Your task to perform on an android device: turn off airplane mode Image 0: 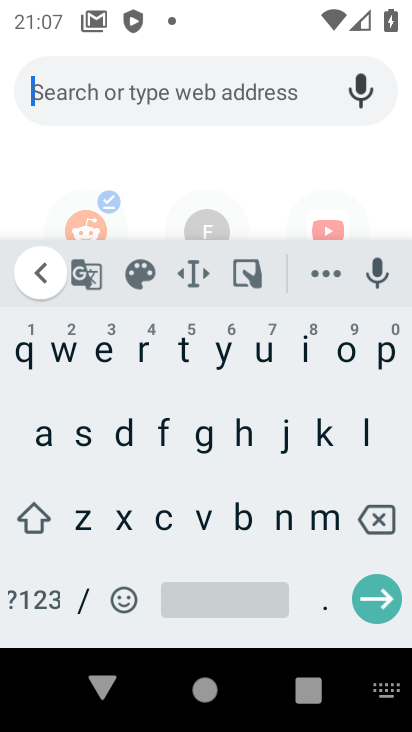
Step 0: press home button
Your task to perform on an android device: turn off airplane mode Image 1: 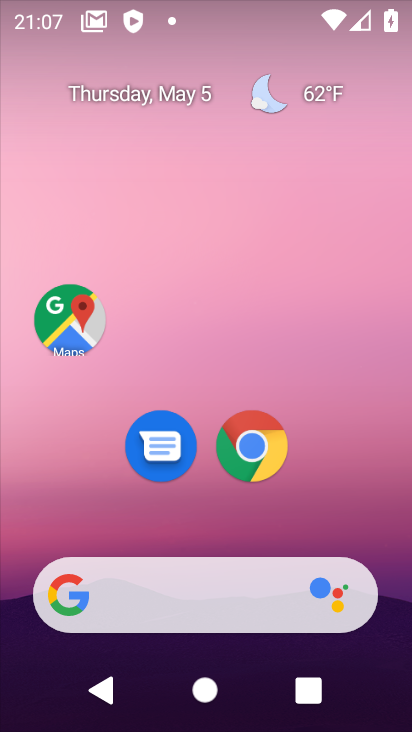
Step 1: drag from (235, 595) to (293, 168)
Your task to perform on an android device: turn off airplane mode Image 2: 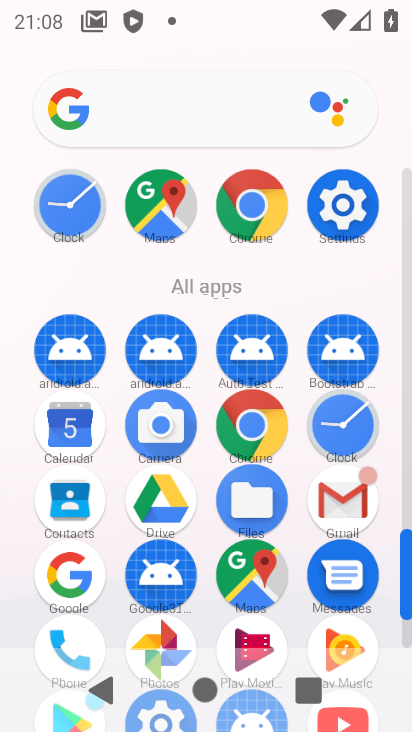
Step 2: click (339, 204)
Your task to perform on an android device: turn off airplane mode Image 3: 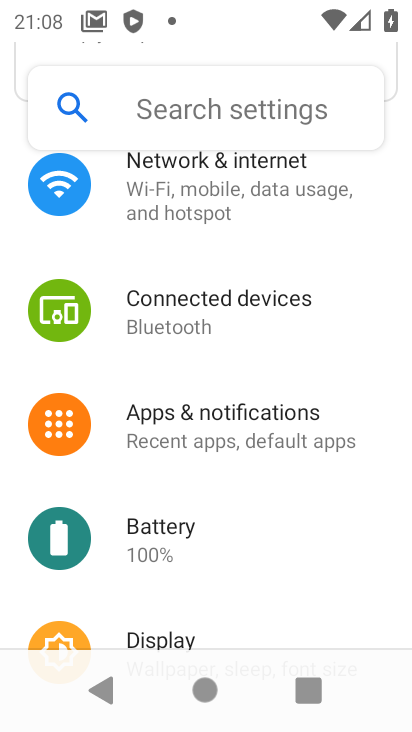
Step 3: click (243, 197)
Your task to perform on an android device: turn off airplane mode Image 4: 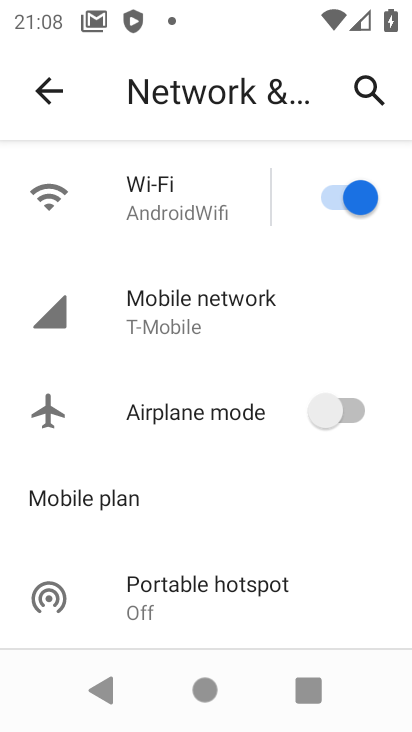
Step 4: click (244, 424)
Your task to perform on an android device: turn off airplane mode Image 5: 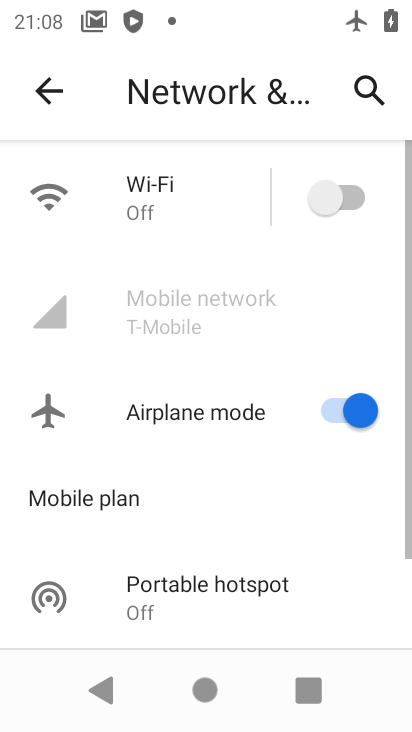
Step 5: click (256, 406)
Your task to perform on an android device: turn off airplane mode Image 6: 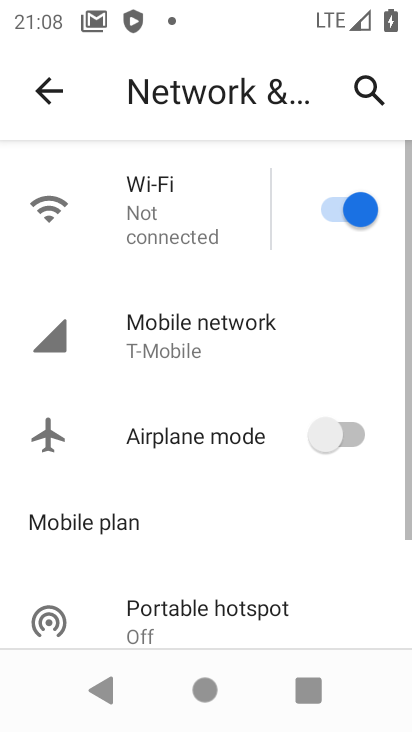
Step 6: task complete